Your task to perform on an android device: Open calendar and show me the third week of next month Image 0: 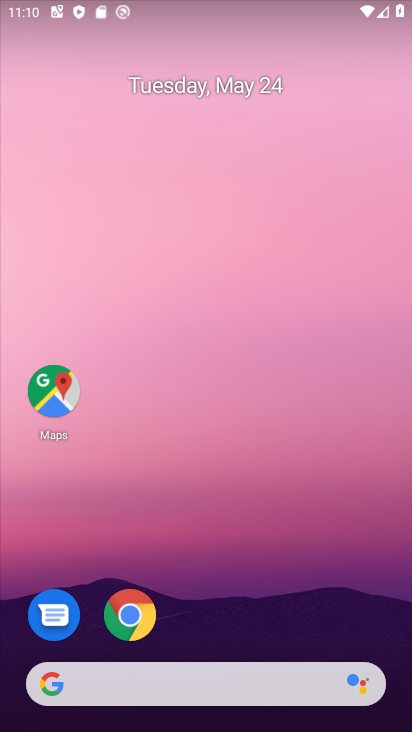
Step 0: drag from (192, 514) to (175, 145)
Your task to perform on an android device: Open calendar and show me the third week of next month Image 1: 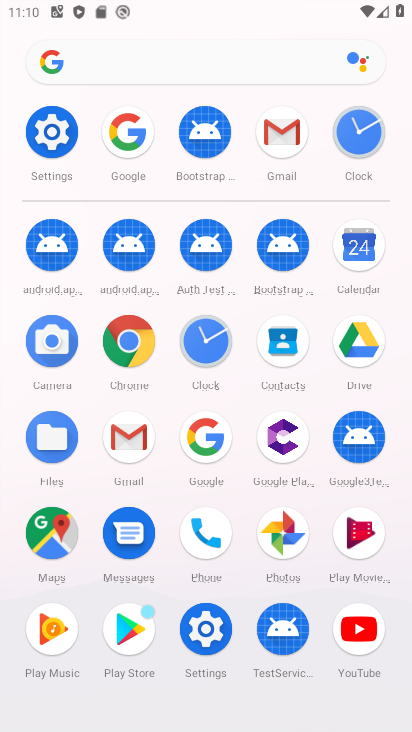
Step 1: click (367, 259)
Your task to perform on an android device: Open calendar and show me the third week of next month Image 2: 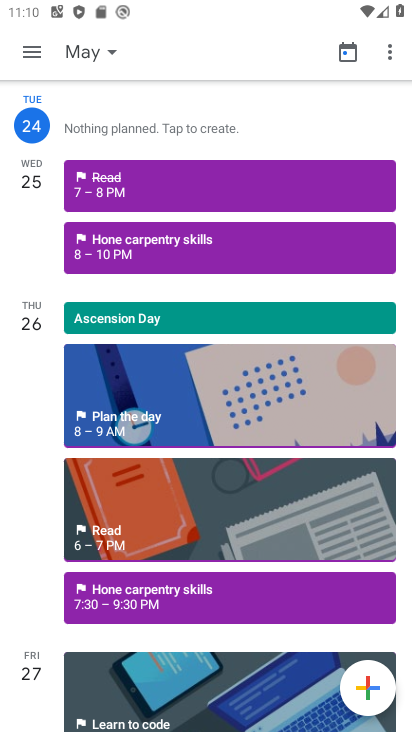
Step 2: click (44, 51)
Your task to perform on an android device: Open calendar and show me the third week of next month Image 3: 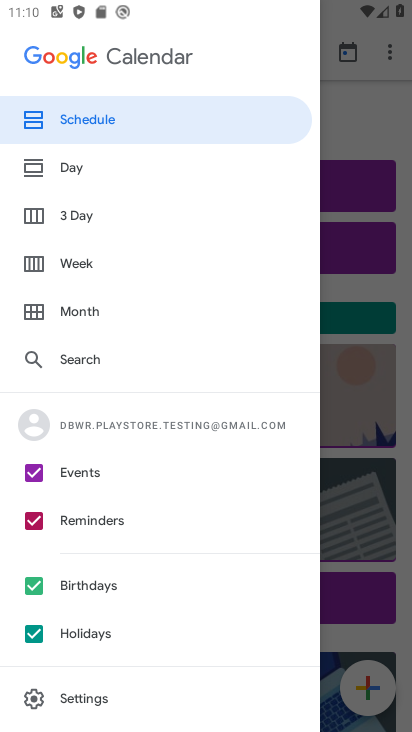
Step 3: click (83, 304)
Your task to perform on an android device: Open calendar and show me the third week of next month Image 4: 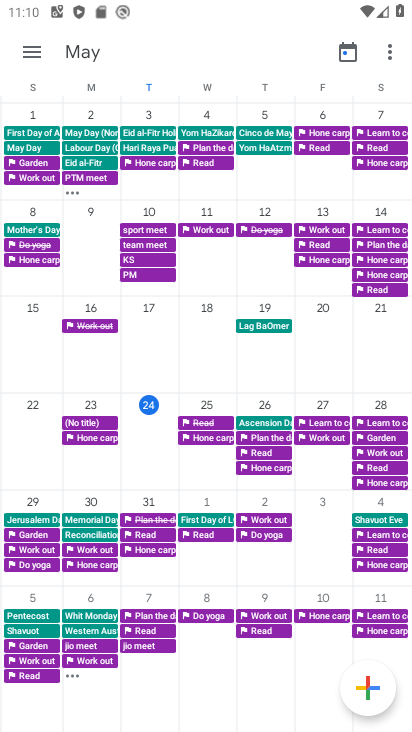
Step 4: task complete